Your task to perform on an android device: Go to display settings Image 0: 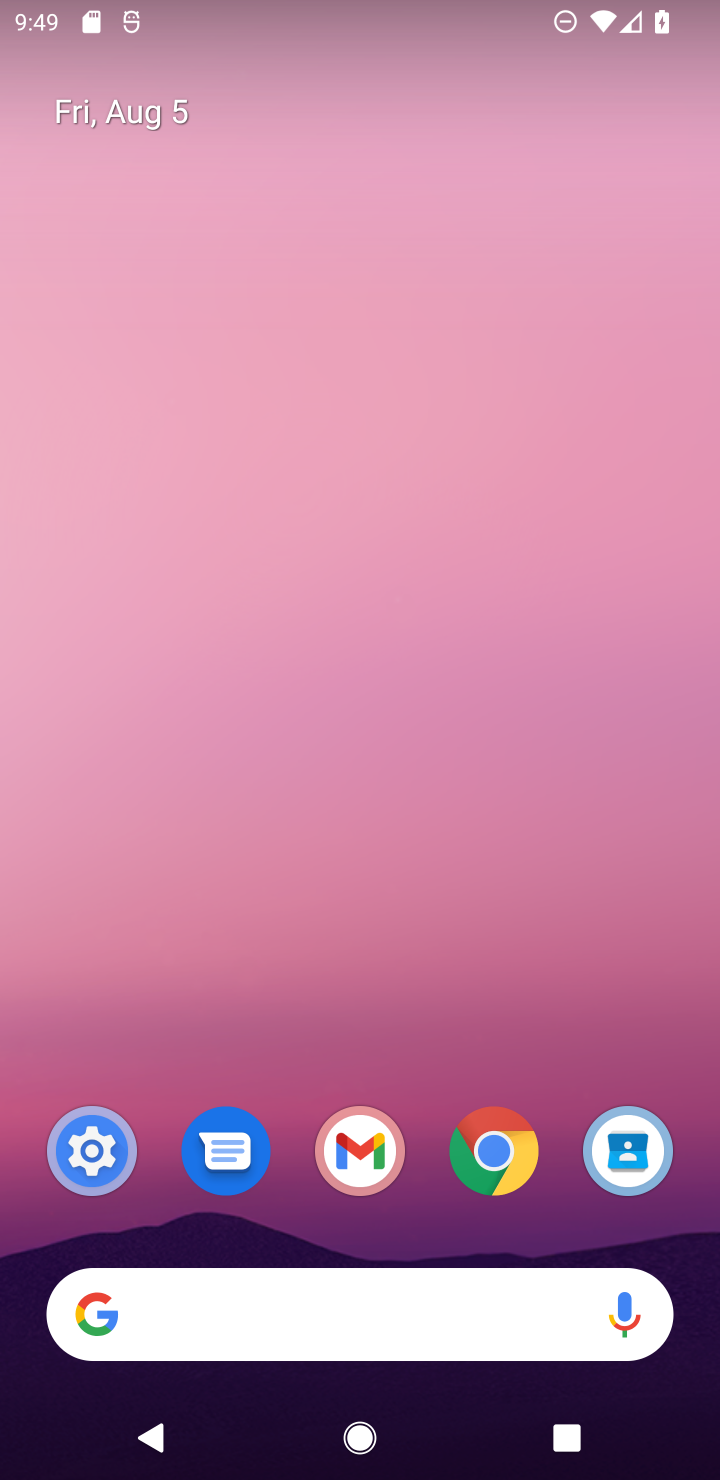
Step 0: drag from (423, 1078) to (712, 893)
Your task to perform on an android device: Go to display settings Image 1: 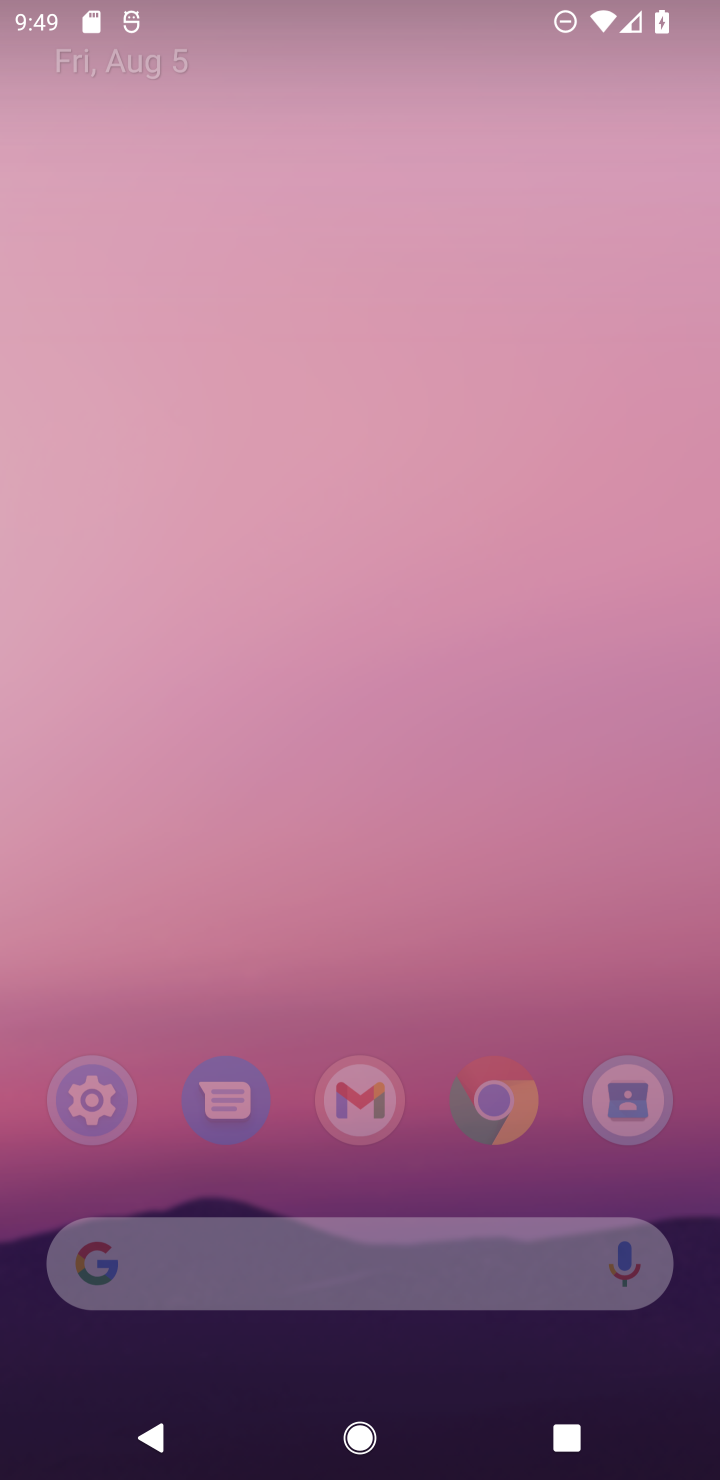
Step 1: click (641, 924)
Your task to perform on an android device: Go to display settings Image 2: 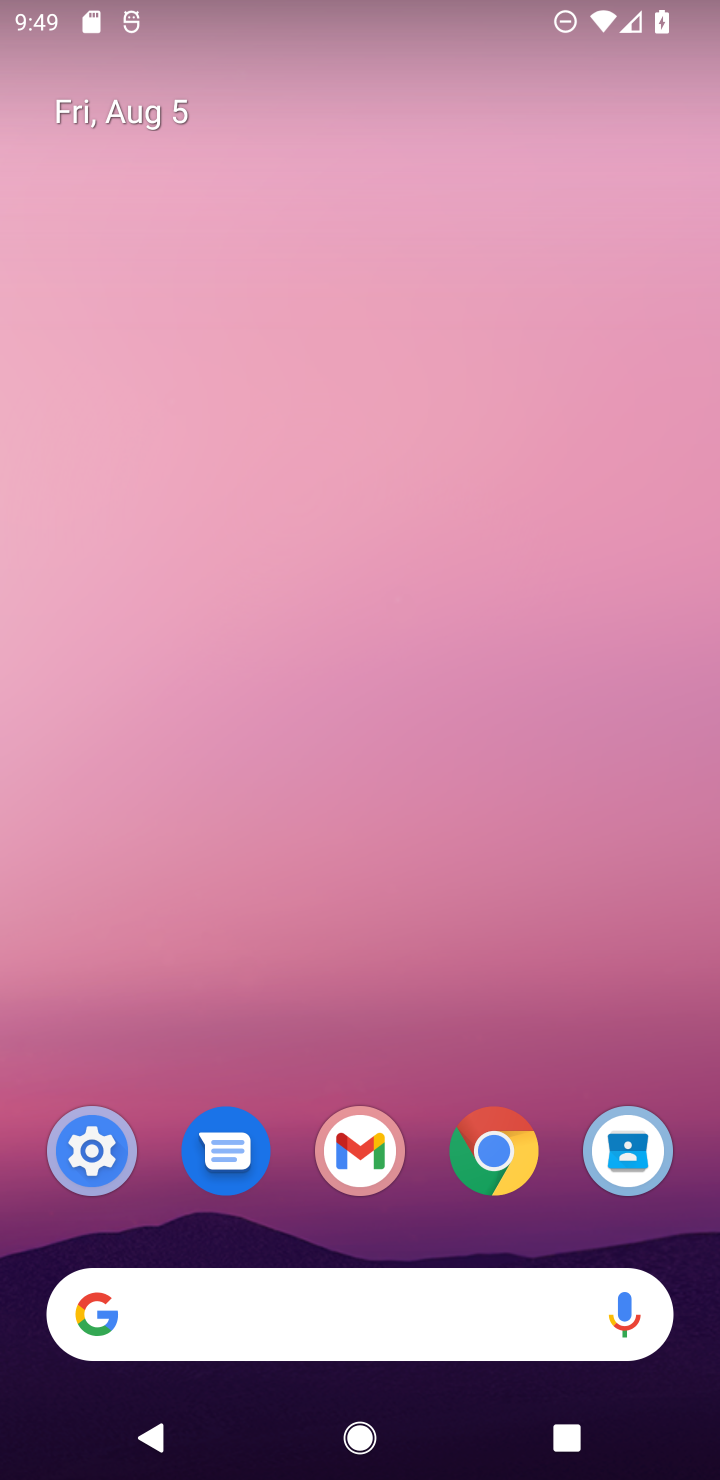
Step 2: click (87, 1171)
Your task to perform on an android device: Go to display settings Image 3: 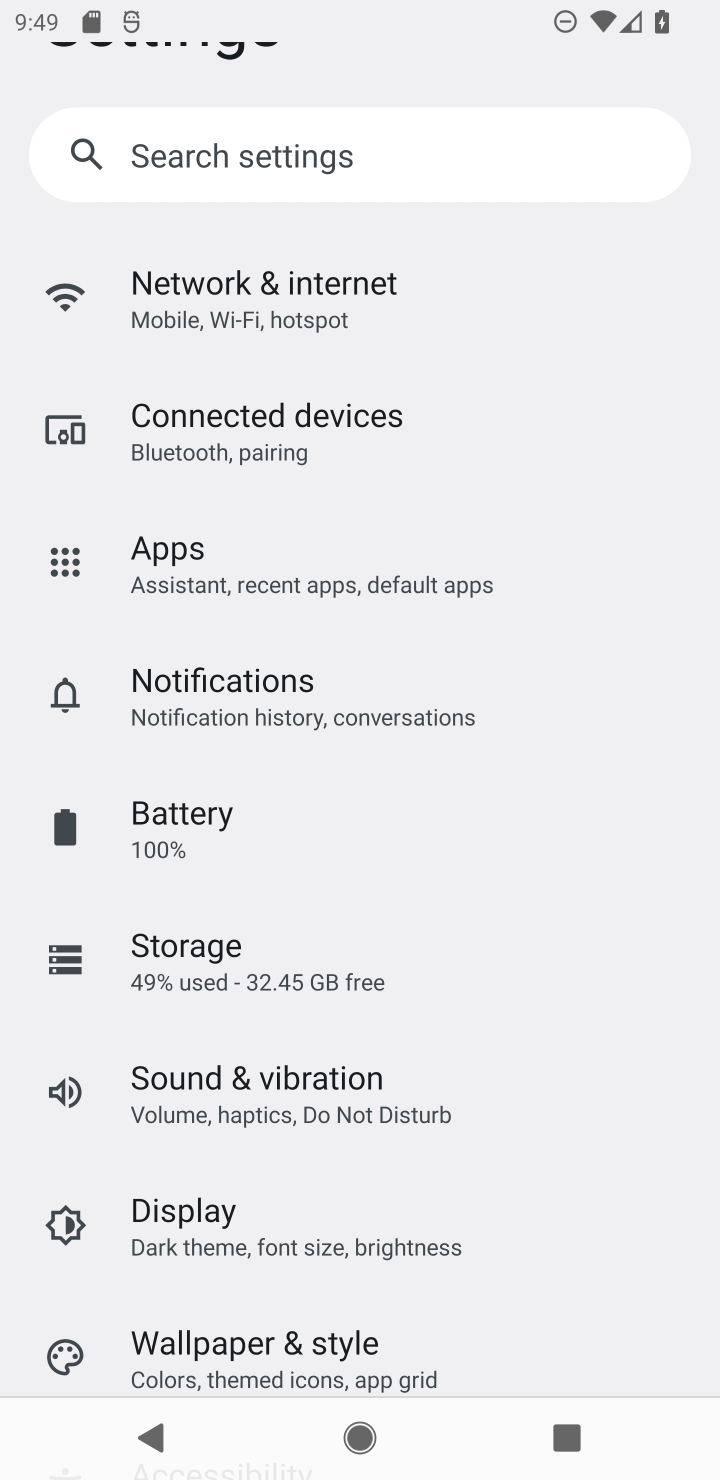
Step 3: click (157, 1223)
Your task to perform on an android device: Go to display settings Image 4: 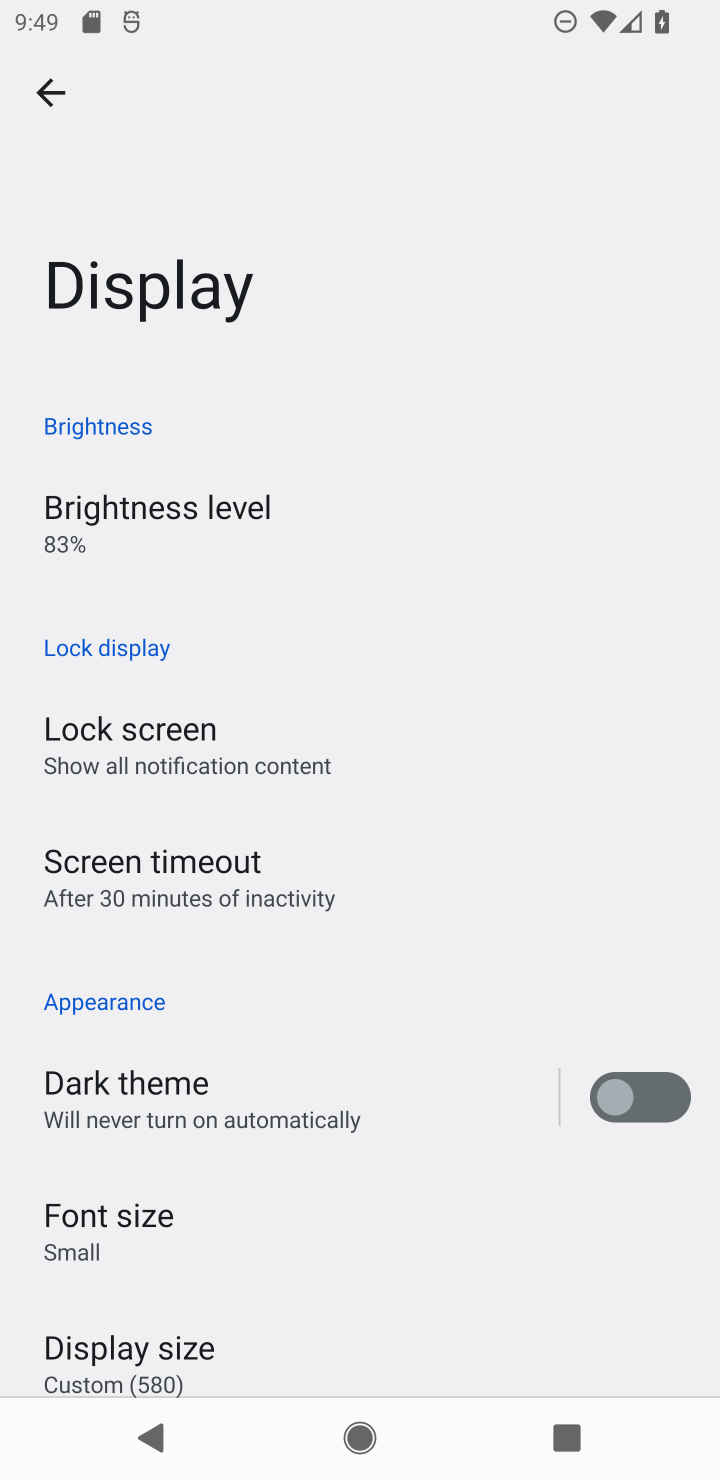
Step 4: task complete